Your task to perform on an android device: What's on my calendar today? Image 0: 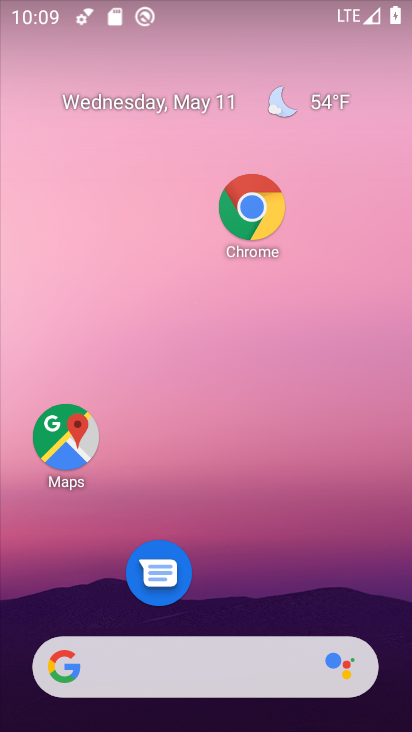
Step 0: drag from (302, 646) to (312, 93)
Your task to perform on an android device: What's on my calendar today? Image 1: 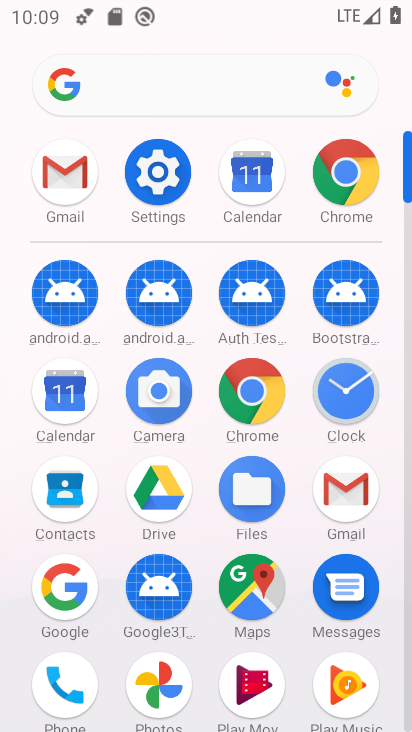
Step 1: click (58, 388)
Your task to perform on an android device: What's on my calendar today? Image 2: 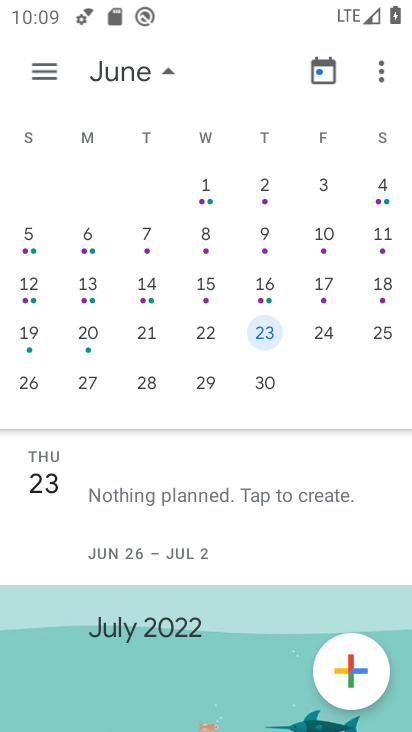
Step 2: drag from (112, 308) to (369, 309)
Your task to perform on an android device: What's on my calendar today? Image 3: 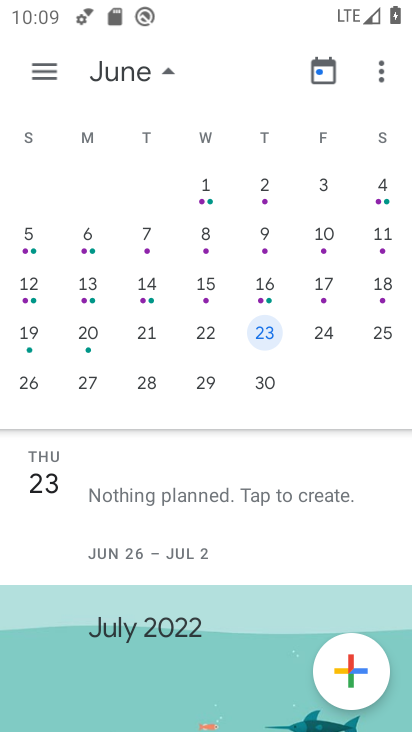
Step 3: drag from (30, 331) to (396, 329)
Your task to perform on an android device: What's on my calendar today? Image 4: 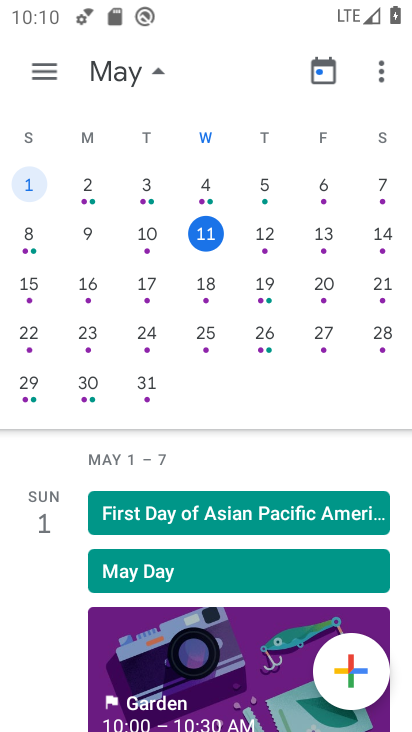
Step 4: click (259, 232)
Your task to perform on an android device: What's on my calendar today? Image 5: 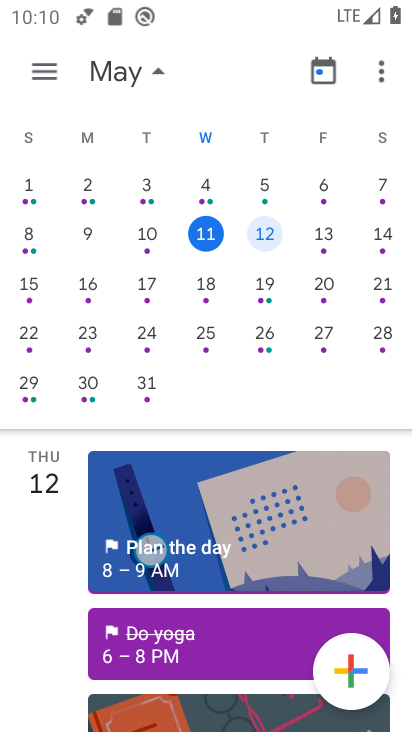
Step 5: click (259, 232)
Your task to perform on an android device: What's on my calendar today? Image 6: 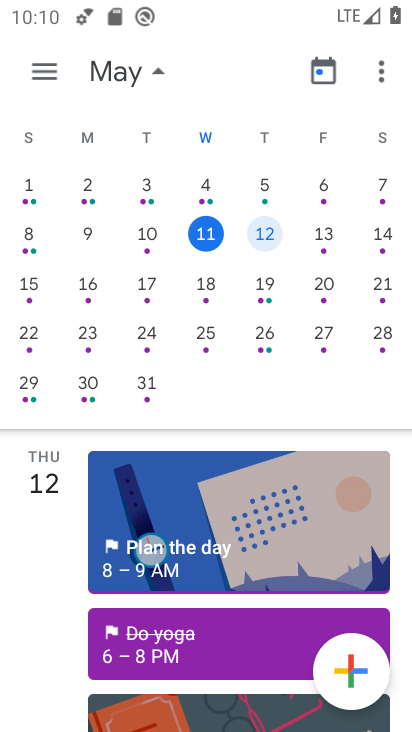
Step 6: click (259, 232)
Your task to perform on an android device: What's on my calendar today? Image 7: 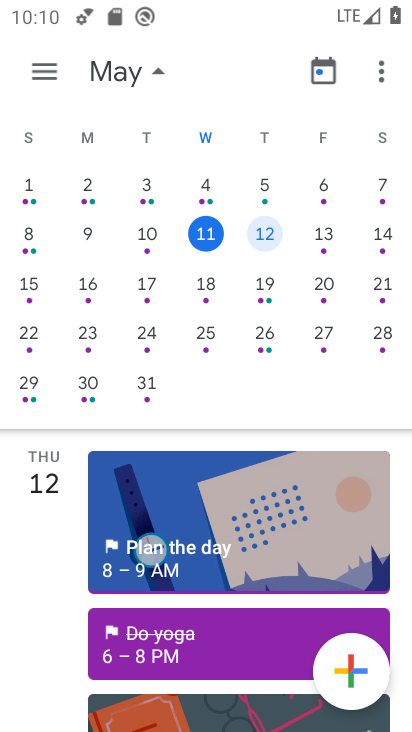
Step 7: task complete